Your task to perform on an android device: delete the emails in spam in the gmail app Image 0: 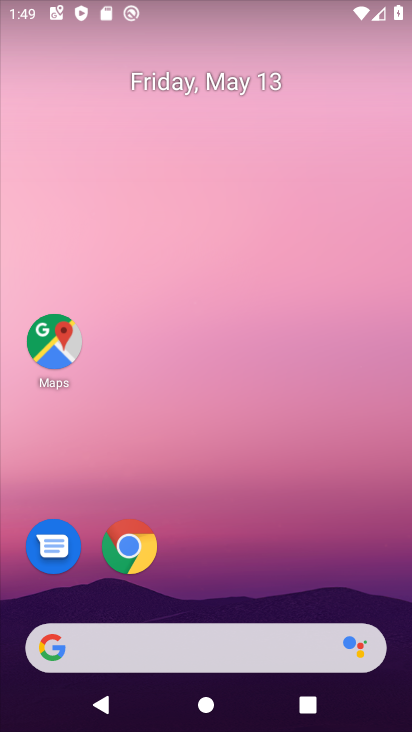
Step 0: drag from (203, 537) to (355, 59)
Your task to perform on an android device: delete the emails in spam in the gmail app Image 1: 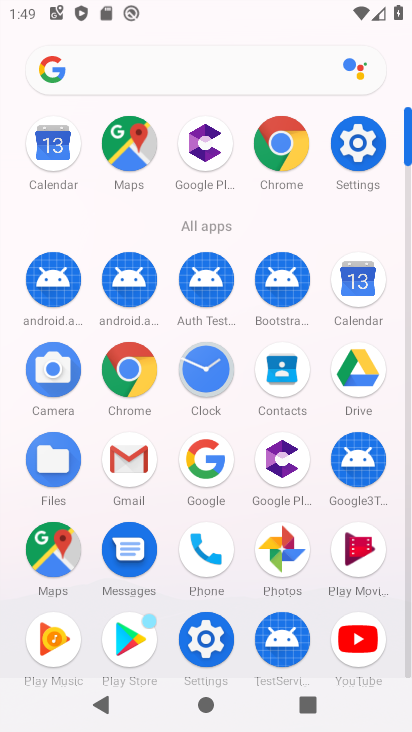
Step 1: click (130, 447)
Your task to perform on an android device: delete the emails in spam in the gmail app Image 2: 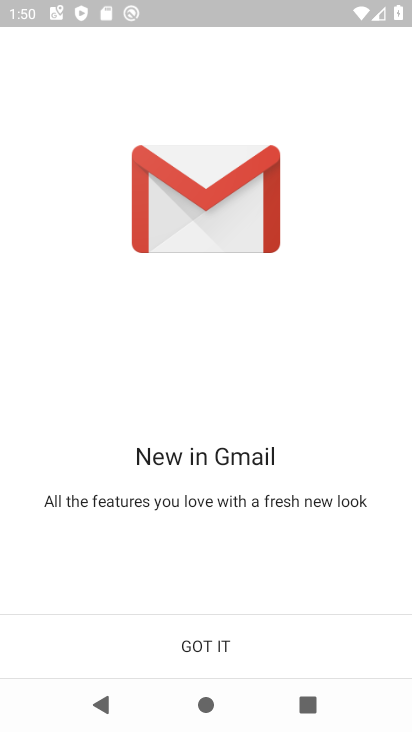
Step 2: click (174, 625)
Your task to perform on an android device: delete the emails in spam in the gmail app Image 3: 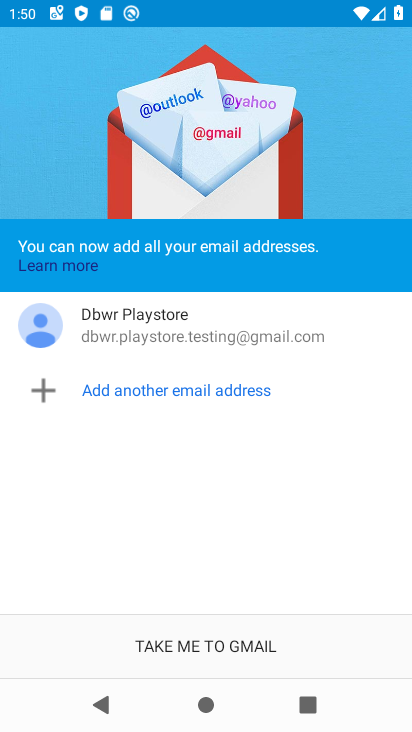
Step 3: click (182, 659)
Your task to perform on an android device: delete the emails in spam in the gmail app Image 4: 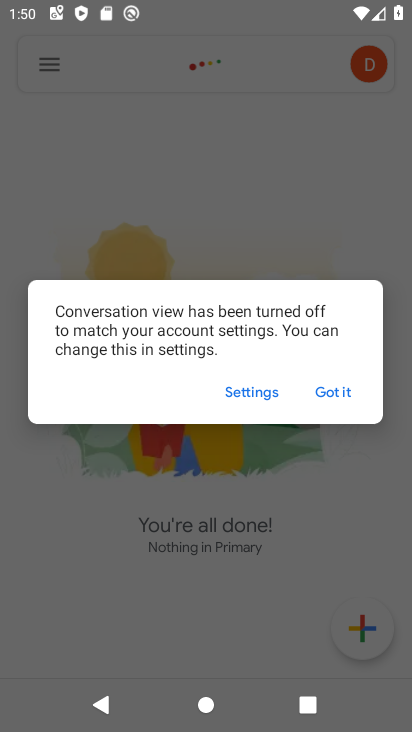
Step 4: click (332, 398)
Your task to perform on an android device: delete the emails in spam in the gmail app Image 5: 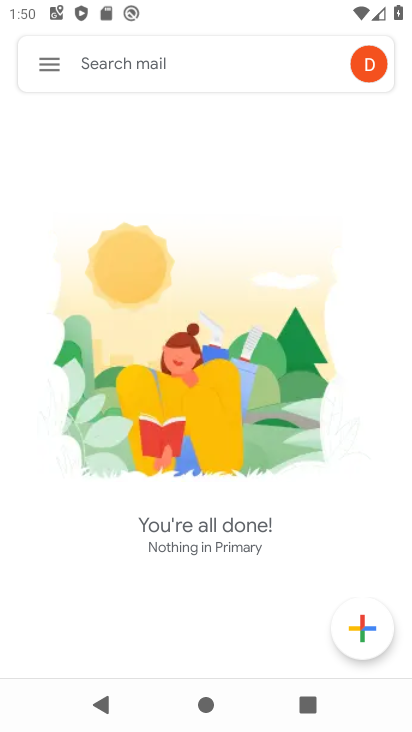
Step 5: click (54, 74)
Your task to perform on an android device: delete the emails in spam in the gmail app Image 6: 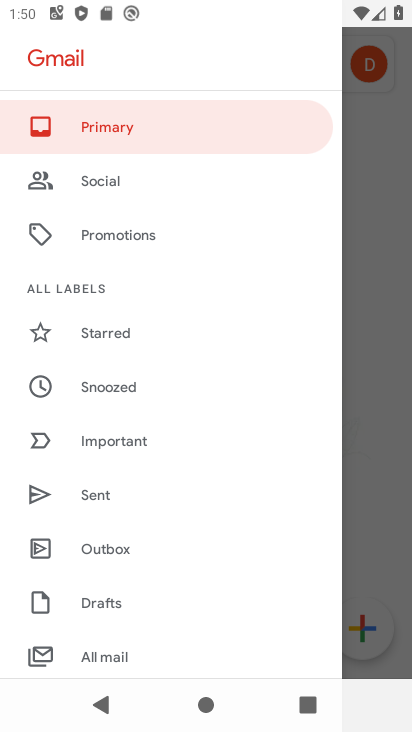
Step 6: drag from (174, 571) to (213, 199)
Your task to perform on an android device: delete the emails in spam in the gmail app Image 7: 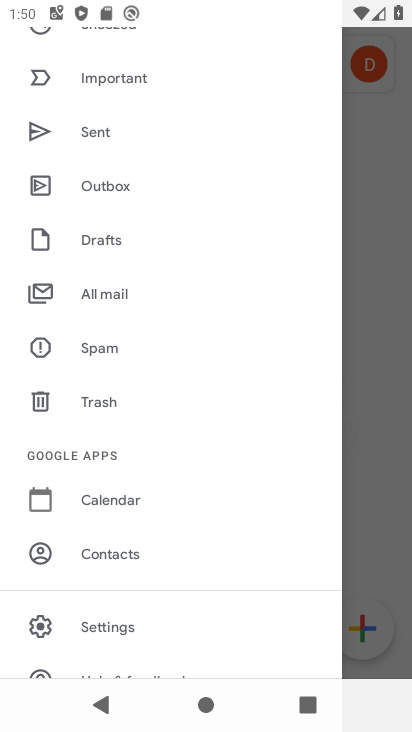
Step 7: click (109, 356)
Your task to perform on an android device: delete the emails in spam in the gmail app Image 8: 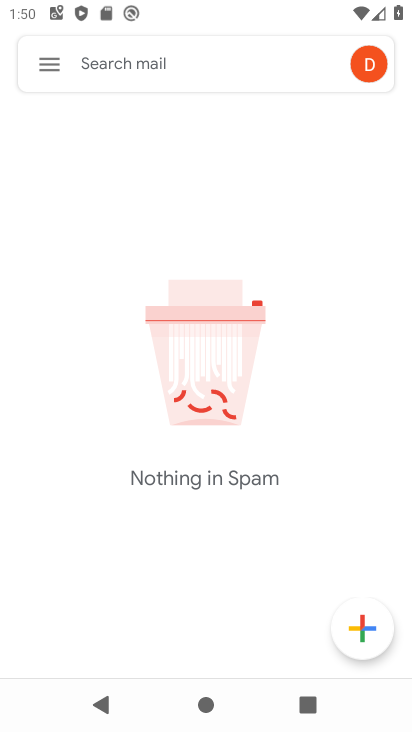
Step 8: task complete